Your task to perform on an android device: uninstall "VLC for Android" Image 0: 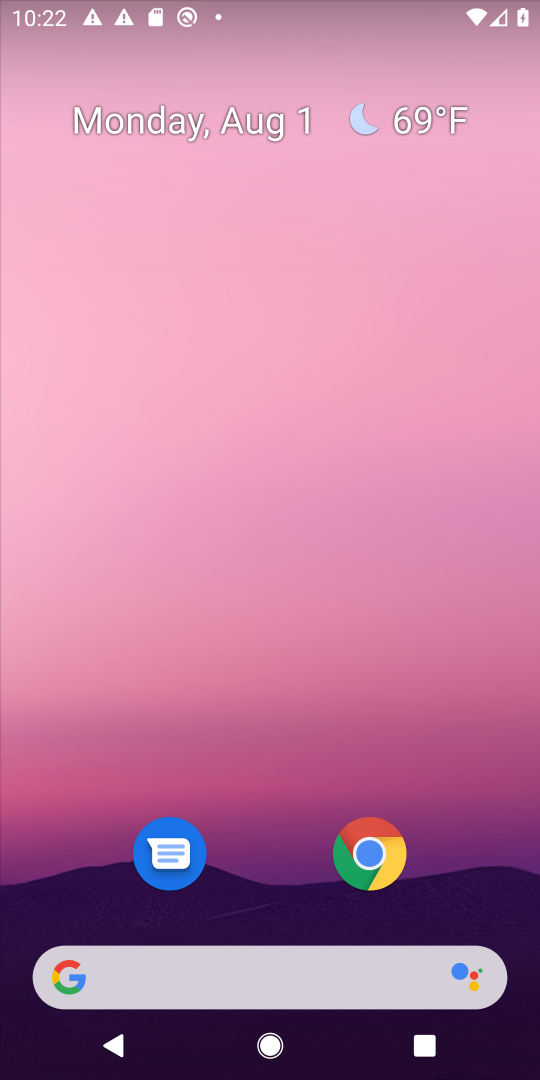
Step 0: press home button
Your task to perform on an android device: uninstall "VLC for Android" Image 1: 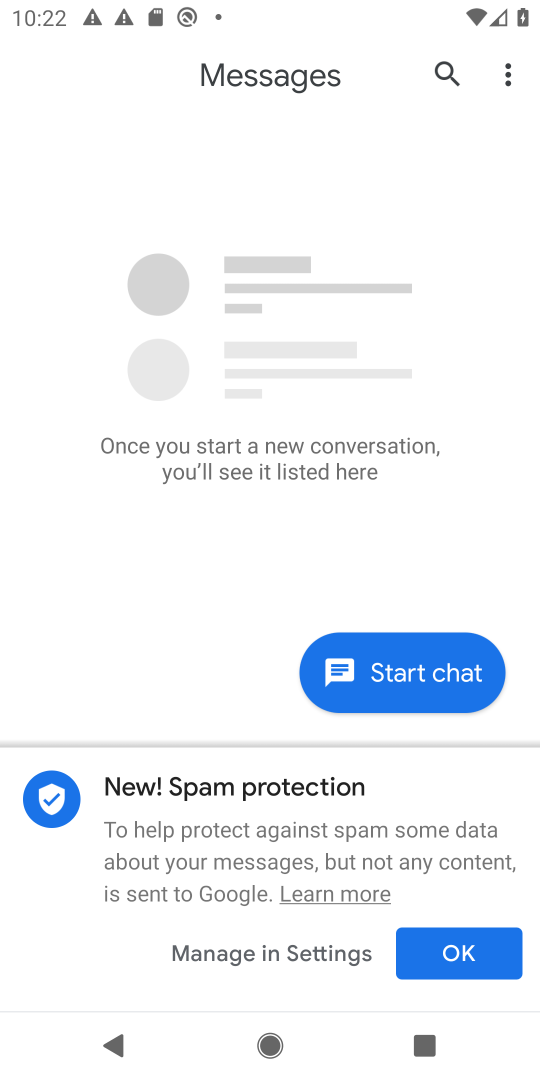
Step 1: drag from (262, 855) to (332, 33)
Your task to perform on an android device: uninstall "VLC for Android" Image 2: 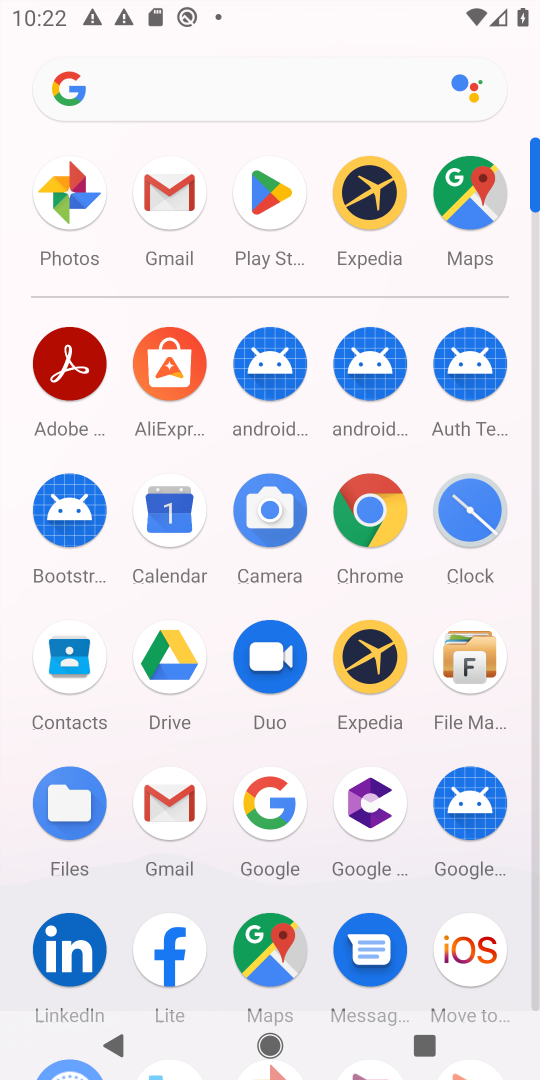
Step 2: click (275, 178)
Your task to perform on an android device: uninstall "VLC for Android" Image 3: 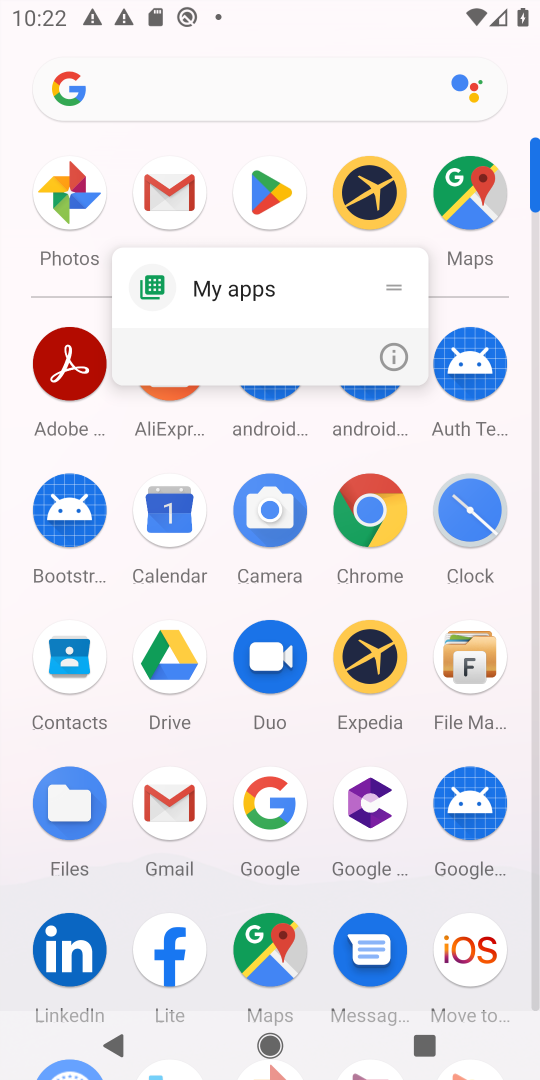
Step 3: click (391, 349)
Your task to perform on an android device: uninstall "VLC for Android" Image 4: 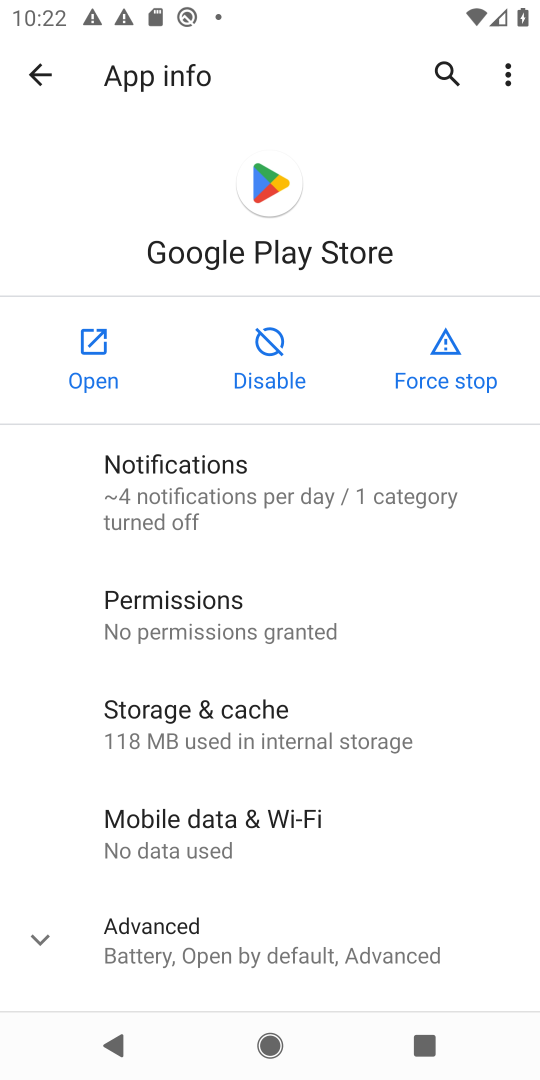
Step 4: click (87, 384)
Your task to perform on an android device: uninstall "VLC for Android" Image 5: 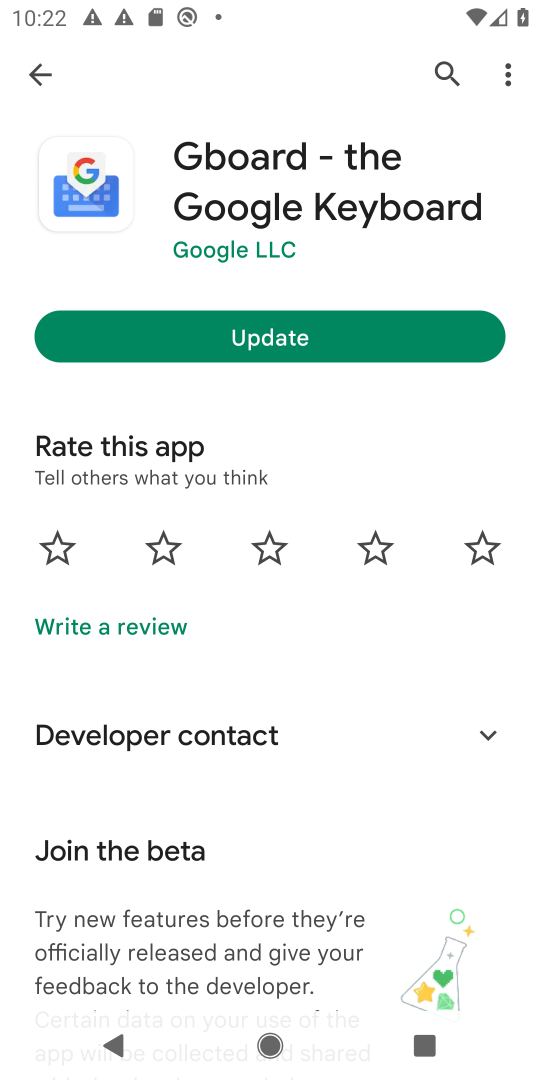
Step 5: click (454, 71)
Your task to perform on an android device: uninstall "VLC for Android" Image 6: 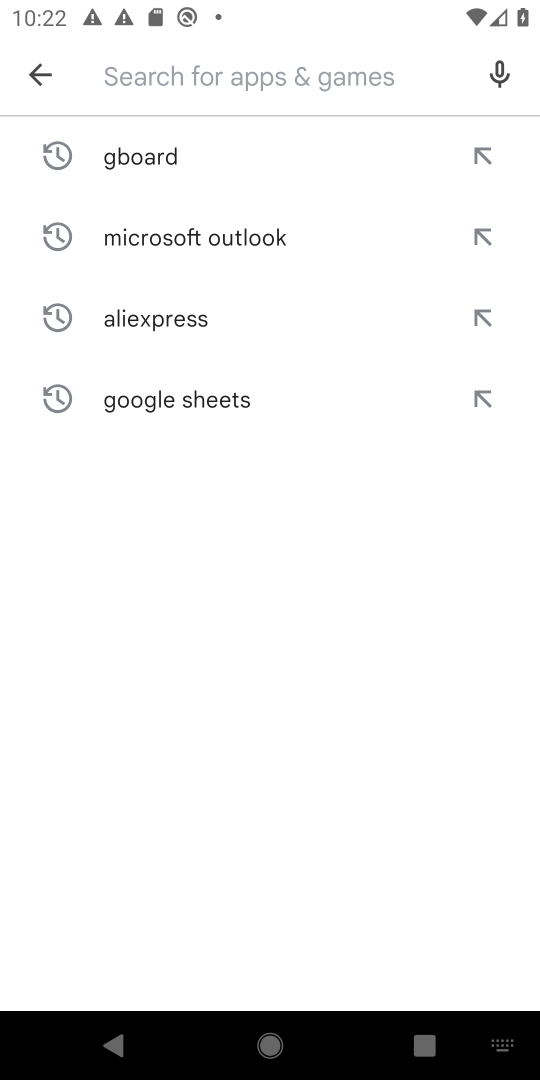
Step 6: type "VLC for Android"
Your task to perform on an android device: uninstall "VLC for Android" Image 7: 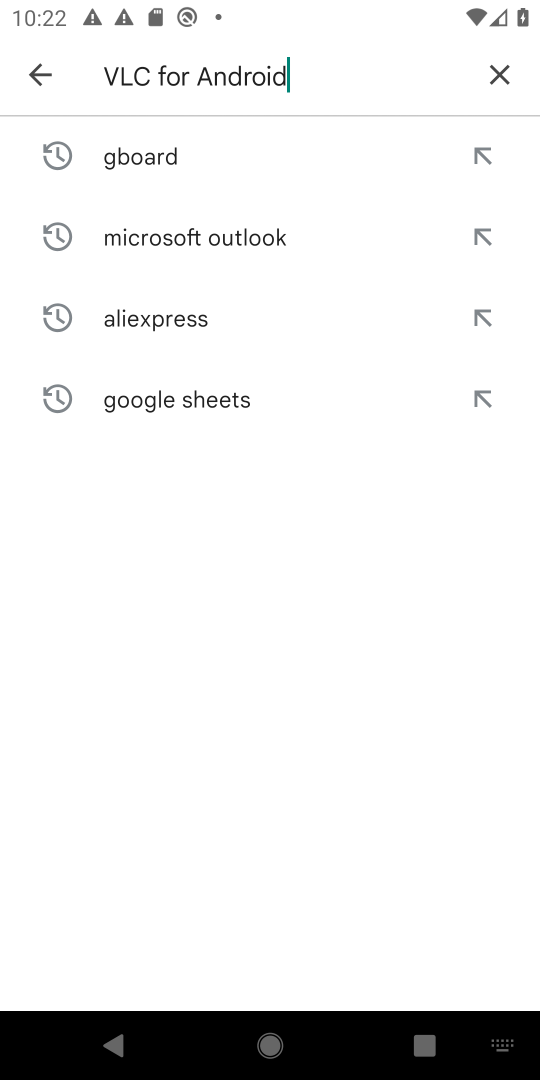
Step 7: type ""
Your task to perform on an android device: uninstall "VLC for Android" Image 8: 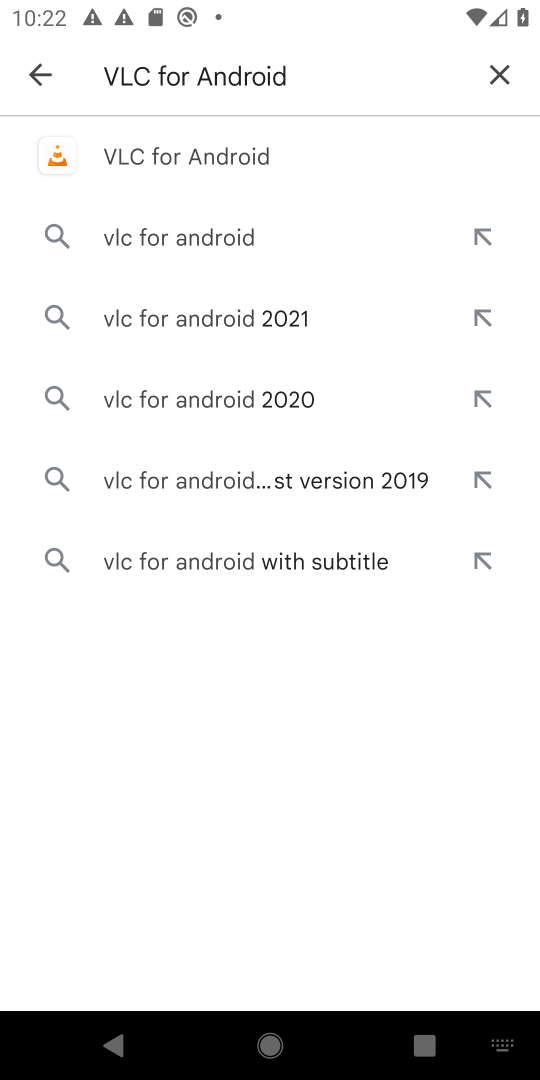
Step 8: click (178, 162)
Your task to perform on an android device: uninstall "VLC for Android" Image 9: 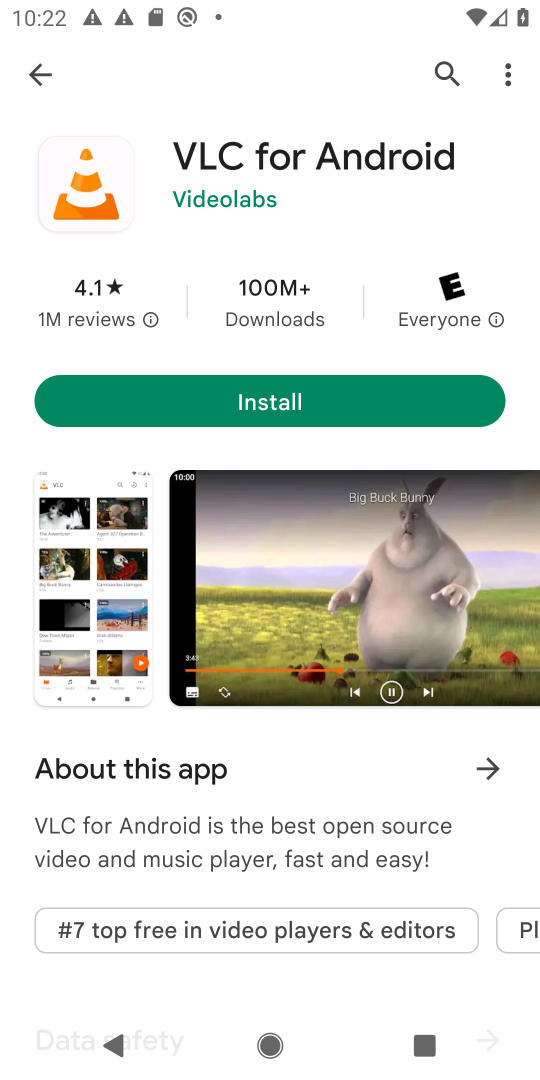
Step 9: task complete